Your task to perform on an android device: What's the weather going to be this weekend? Image 0: 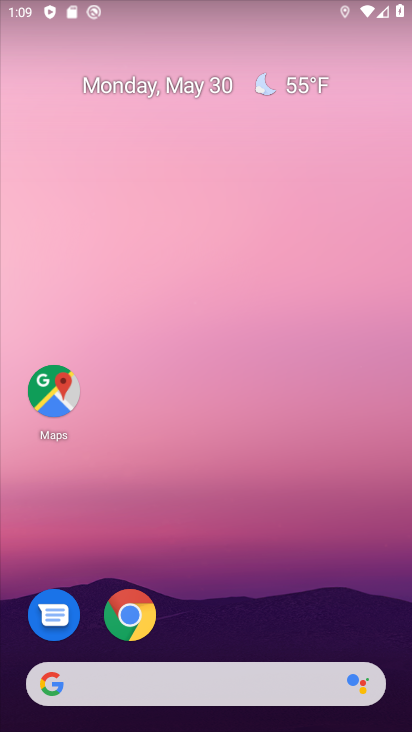
Step 0: click (300, 96)
Your task to perform on an android device: What's the weather going to be this weekend? Image 1: 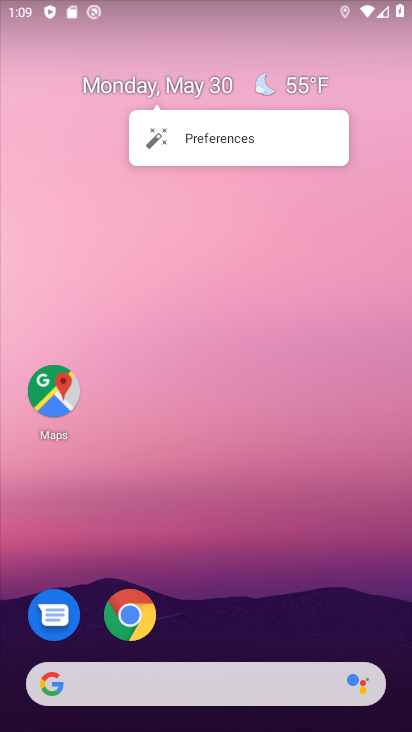
Step 1: click (291, 90)
Your task to perform on an android device: What's the weather going to be this weekend? Image 2: 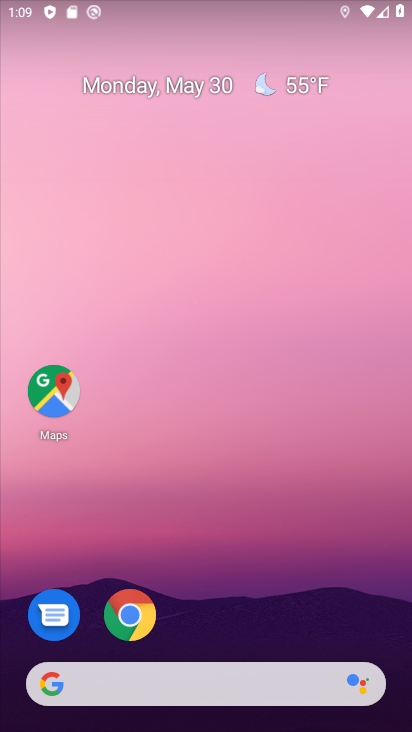
Step 2: click (268, 89)
Your task to perform on an android device: What's the weather going to be this weekend? Image 3: 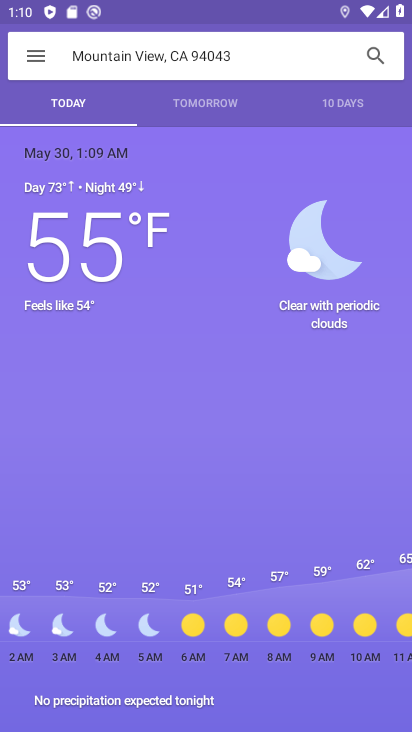
Step 3: click (324, 113)
Your task to perform on an android device: What's the weather going to be this weekend? Image 4: 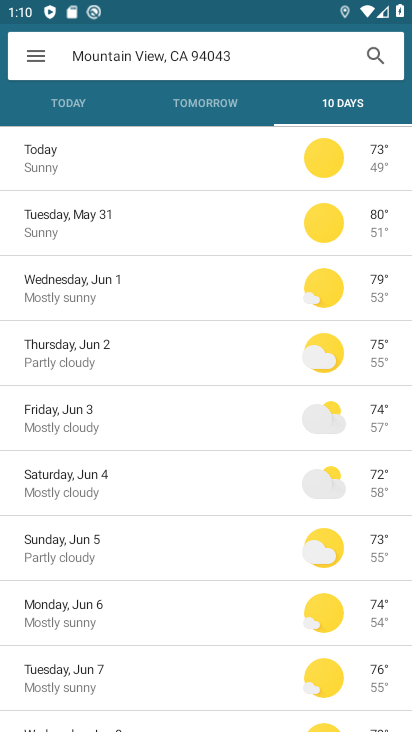
Step 4: task complete